Your task to perform on an android device: check data usage Image 0: 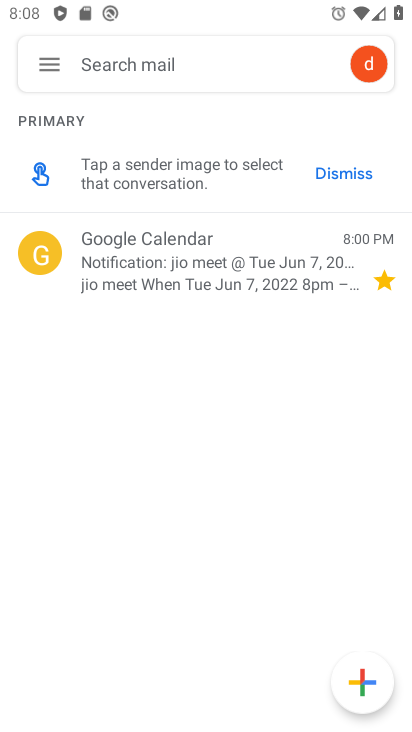
Step 0: press back button
Your task to perform on an android device: check data usage Image 1: 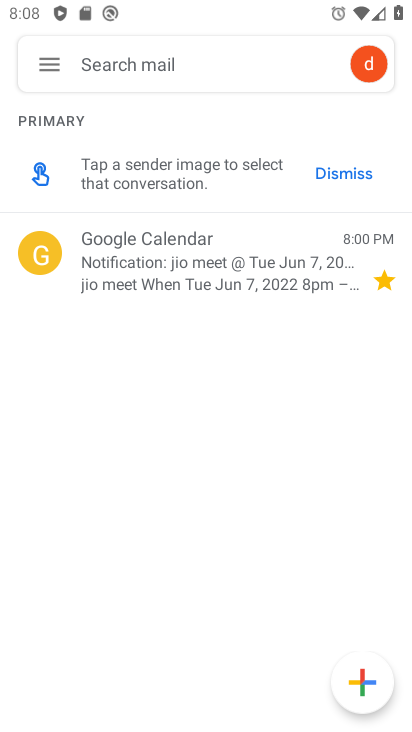
Step 1: press home button
Your task to perform on an android device: check data usage Image 2: 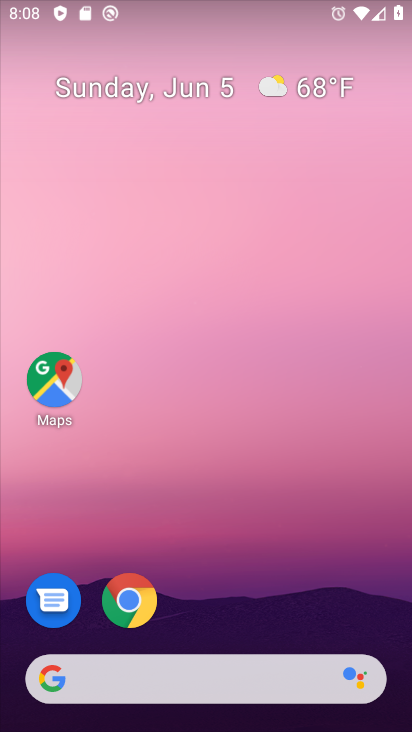
Step 2: drag from (365, 617) to (217, 24)
Your task to perform on an android device: check data usage Image 3: 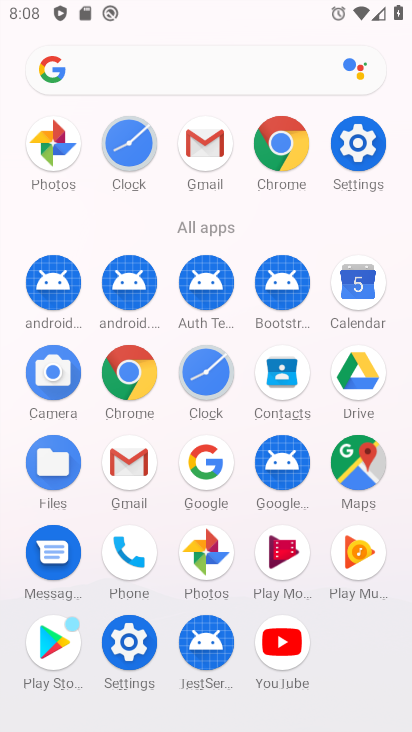
Step 3: click (364, 149)
Your task to perform on an android device: check data usage Image 4: 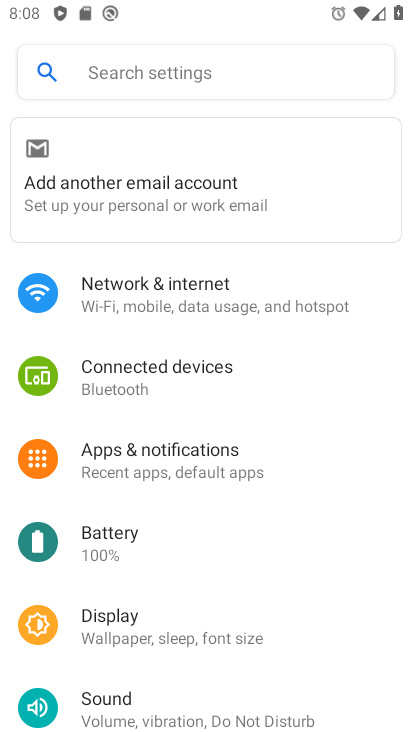
Step 4: drag from (122, 677) to (109, 438)
Your task to perform on an android device: check data usage Image 5: 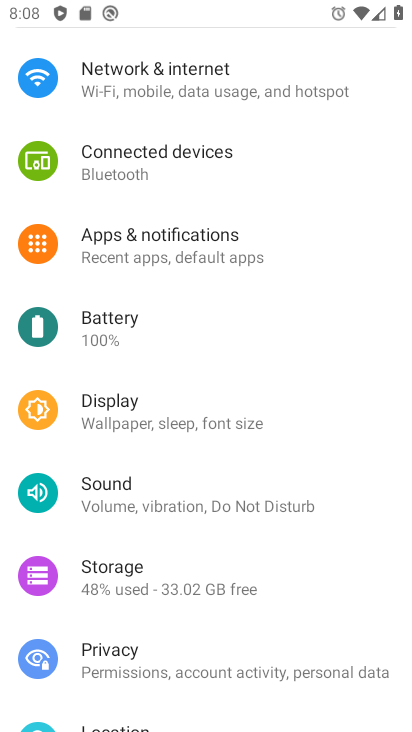
Step 5: click (164, 335)
Your task to perform on an android device: check data usage Image 6: 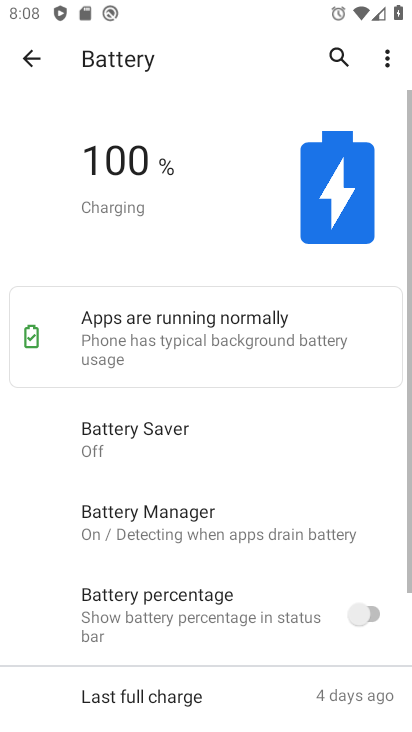
Step 6: click (383, 59)
Your task to perform on an android device: check data usage Image 7: 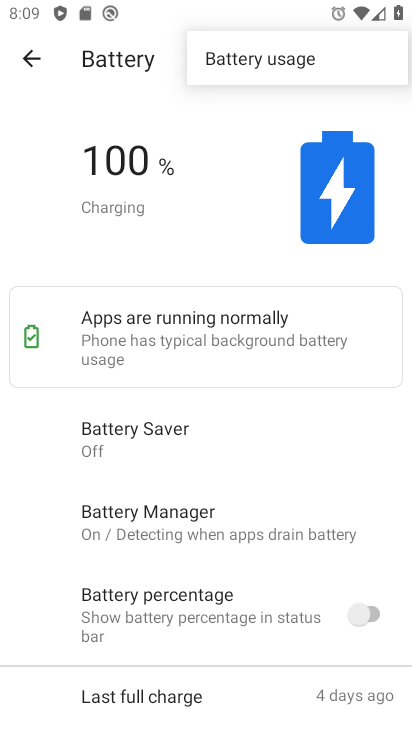
Step 7: click (282, 64)
Your task to perform on an android device: check data usage Image 8: 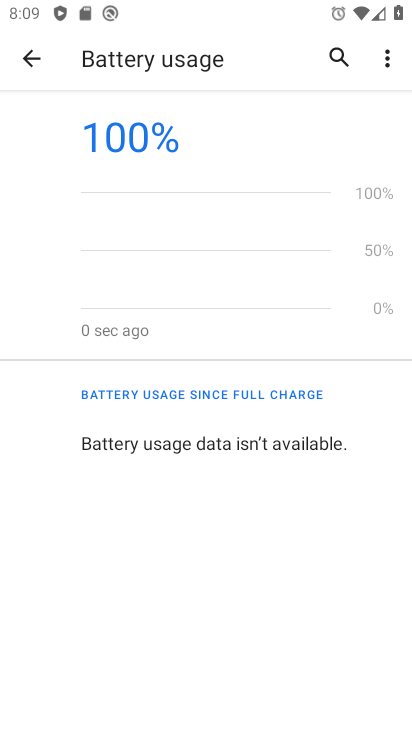
Step 8: task complete